Your task to perform on an android device: When is my next appointment? Image 0: 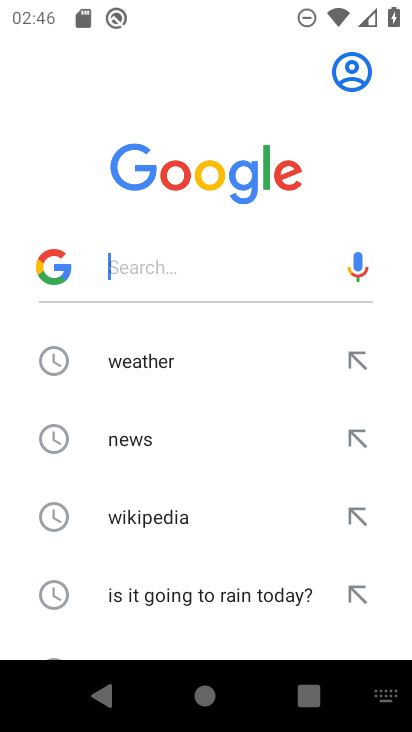
Step 0: press home button
Your task to perform on an android device: When is my next appointment? Image 1: 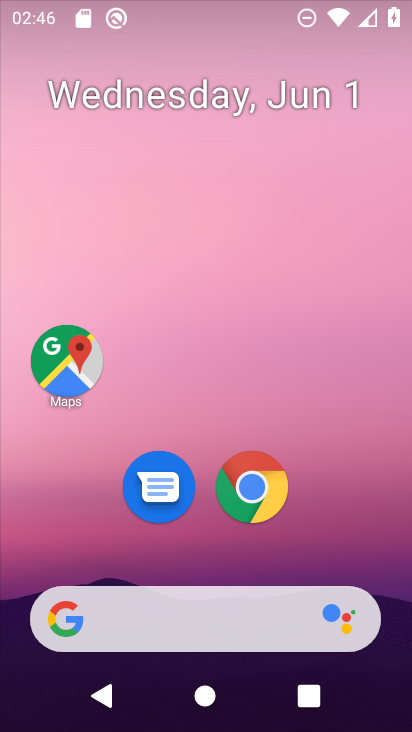
Step 1: drag from (298, 541) to (323, 184)
Your task to perform on an android device: When is my next appointment? Image 2: 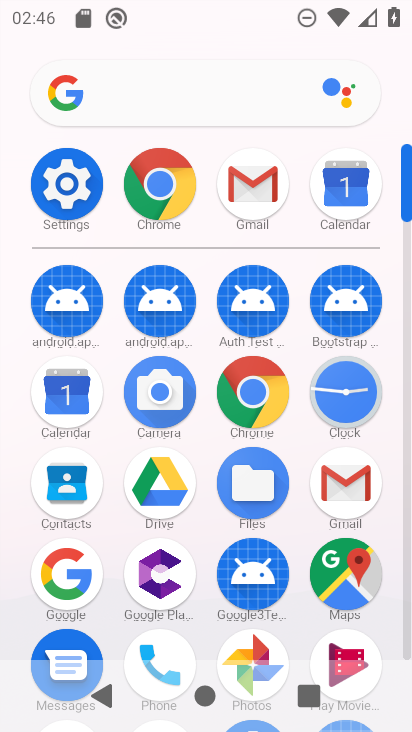
Step 2: drag from (111, 532) to (127, 409)
Your task to perform on an android device: When is my next appointment? Image 3: 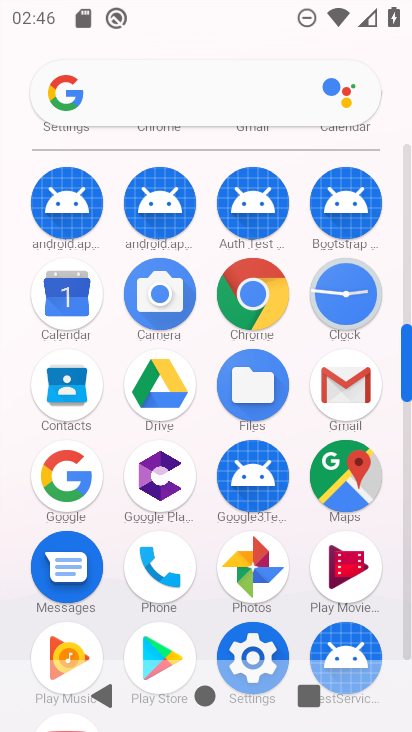
Step 3: click (78, 291)
Your task to perform on an android device: When is my next appointment? Image 4: 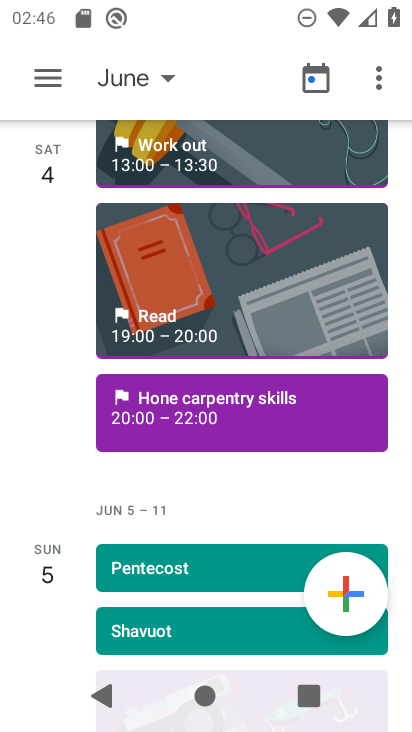
Step 4: click (44, 79)
Your task to perform on an android device: When is my next appointment? Image 5: 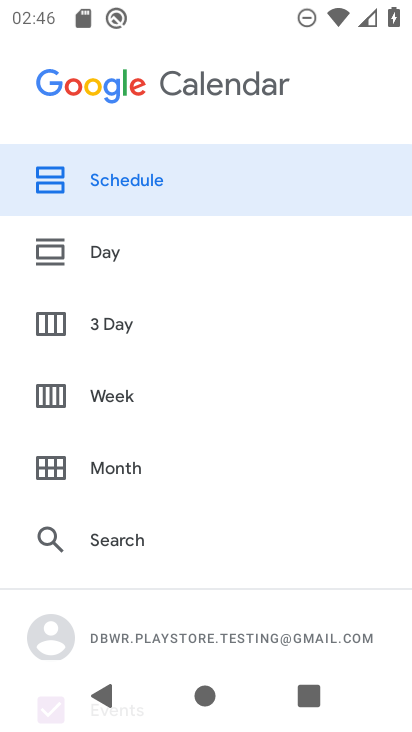
Step 5: click (125, 455)
Your task to perform on an android device: When is my next appointment? Image 6: 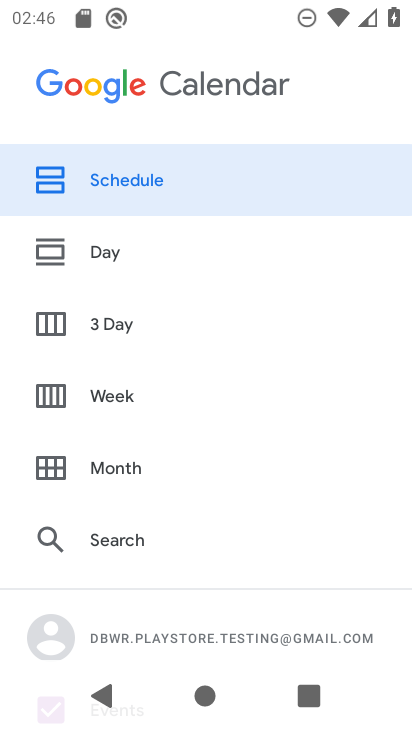
Step 6: click (134, 461)
Your task to perform on an android device: When is my next appointment? Image 7: 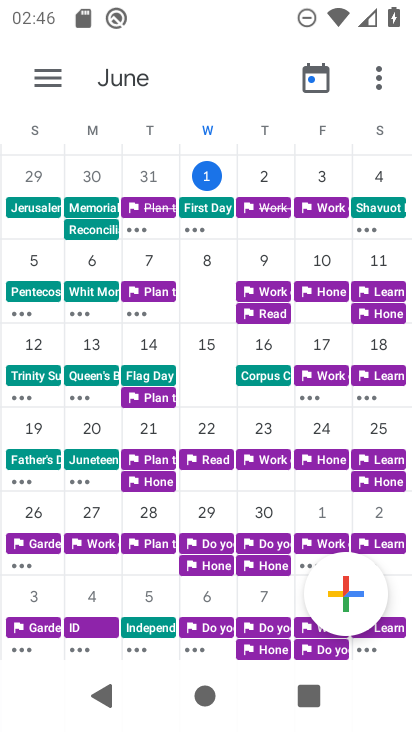
Step 7: click (266, 172)
Your task to perform on an android device: When is my next appointment? Image 8: 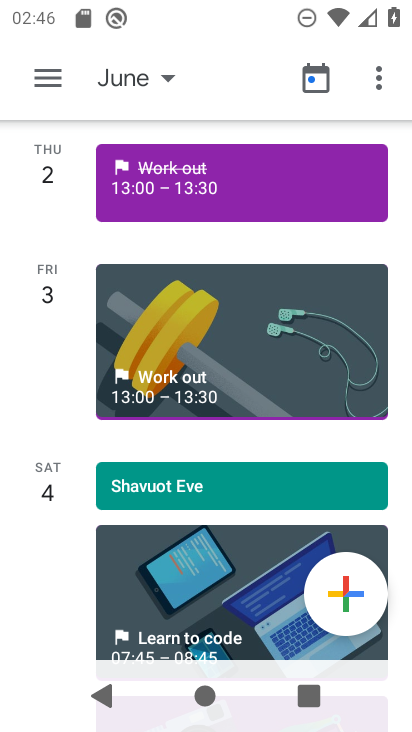
Step 8: task complete